Your task to perform on an android device: toggle notification dots Image 0: 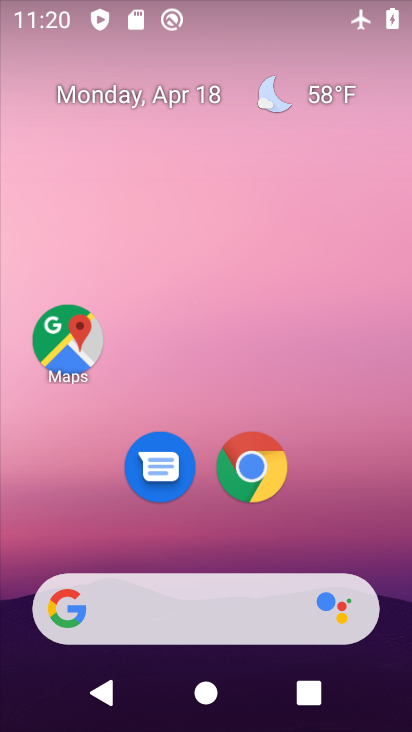
Step 0: drag from (203, 327) to (202, 80)
Your task to perform on an android device: toggle notification dots Image 1: 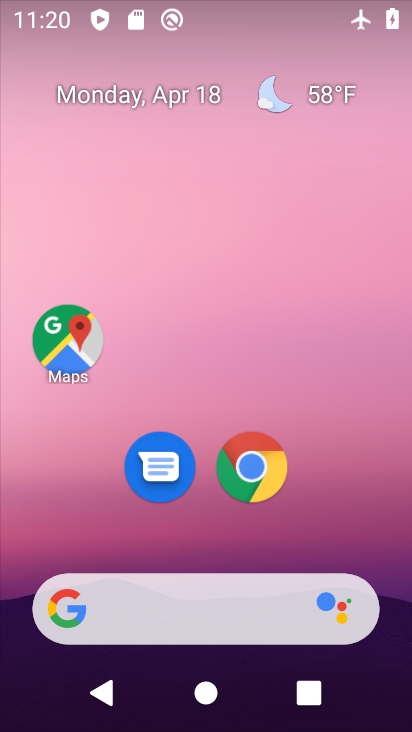
Step 1: drag from (217, 512) to (215, 50)
Your task to perform on an android device: toggle notification dots Image 2: 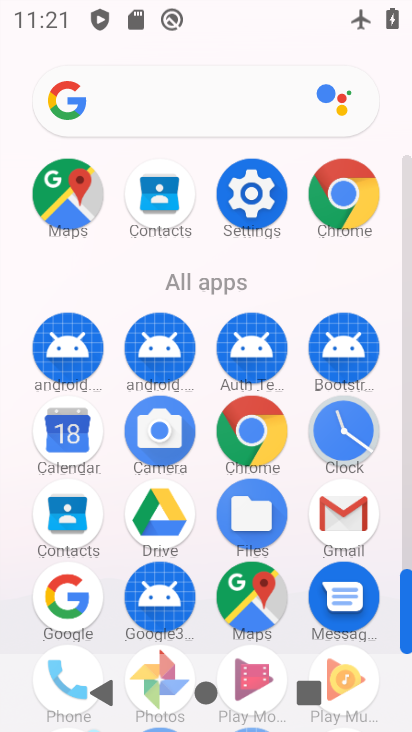
Step 2: click (243, 197)
Your task to perform on an android device: toggle notification dots Image 3: 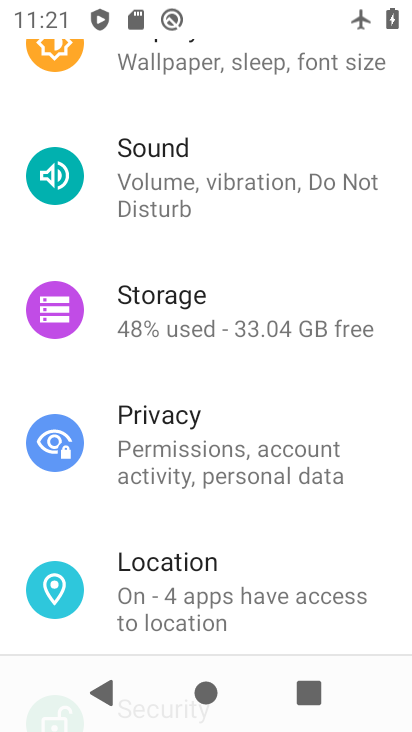
Step 3: drag from (253, 190) to (219, 541)
Your task to perform on an android device: toggle notification dots Image 4: 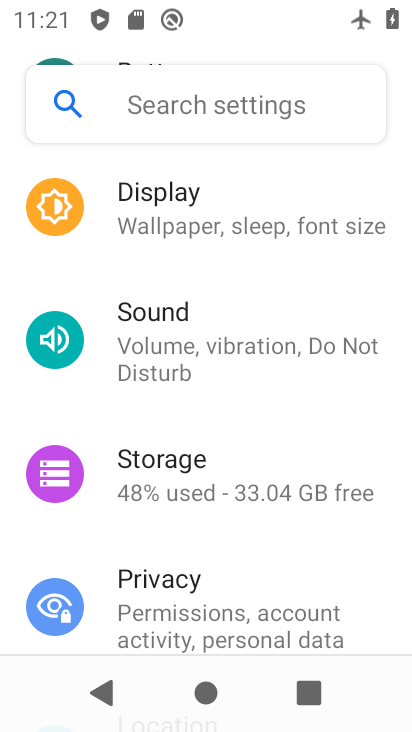
Step 4: drag from (234, 193) to (218, 636)
Your task to perform on an android device: toggle notification dots Image 5: 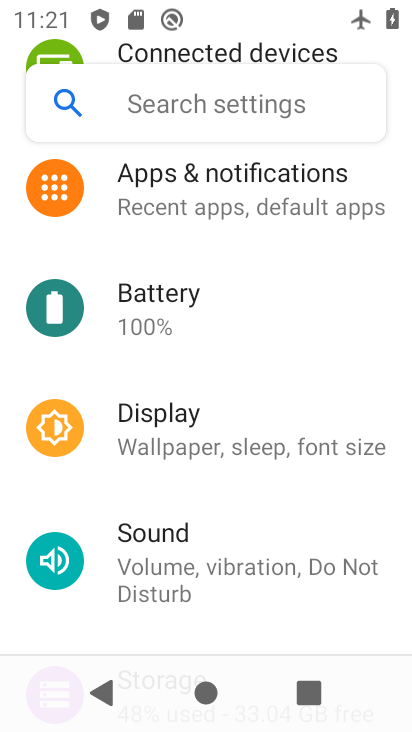
Step 5: click (211, 197)
Your task to perform on an android device: toggle notification dots Image 6: 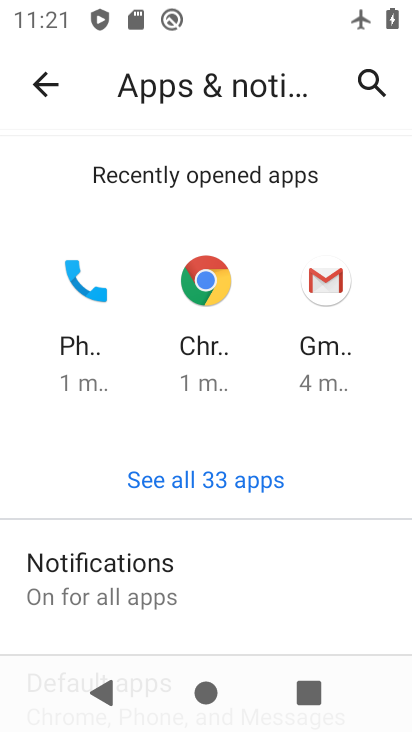
Step 6: click (162, 570)
Your task to perform on an android device: toggle notification dots Image 7: 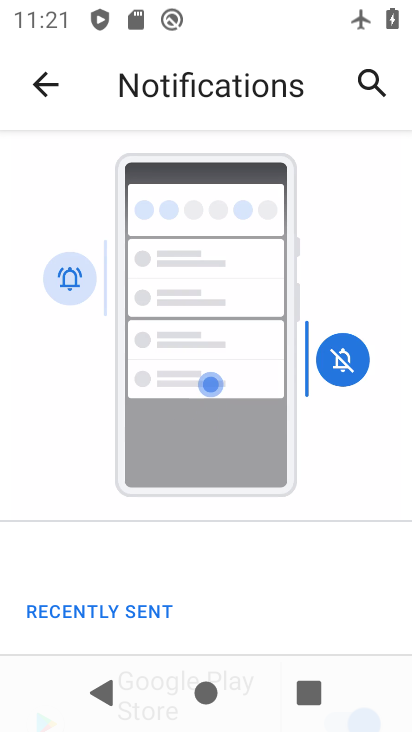
Step 7: drag from (193, 574) to (176, 197)
Your task to perform on an android device: toggle notification dots Image 8: 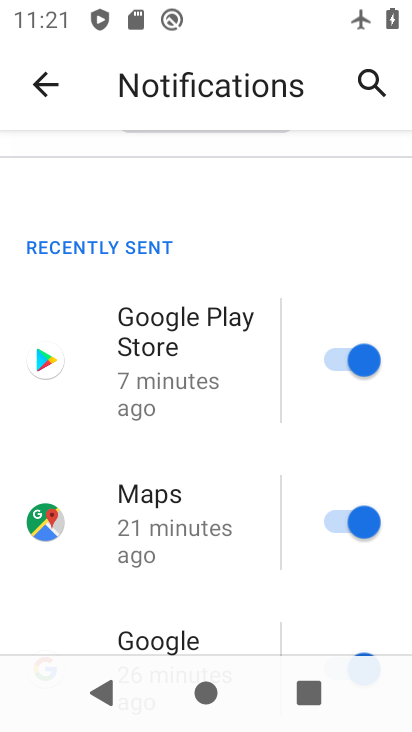
Step 8: drag from (195, 551) to (203, 201)
Your task to perform on an android device: toggle notification dots Image 9: 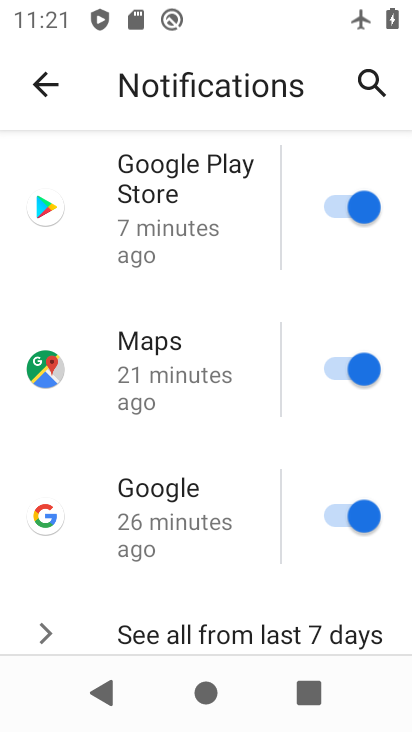
Step 9: drag from (194, 500) to (186, 183)
Your task to perform on an android device: toggle notification dots Image 10: 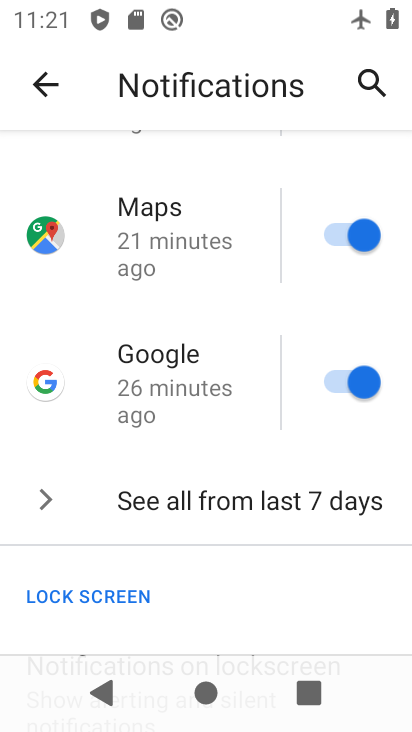
Step 10: drag from (199, 588) to (198, 201)
Your task to perform on an android device: toggle notification dots Image 11: 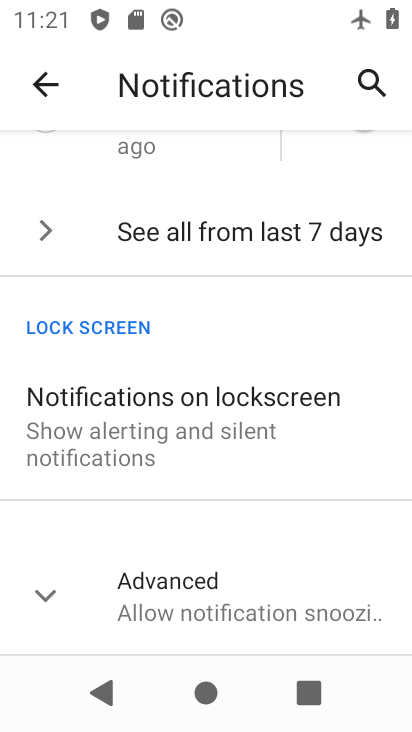
Step 11: drag from (247, 579) to (250, 215)
Your task to perform on an android device: toggle notification dots Image 12: 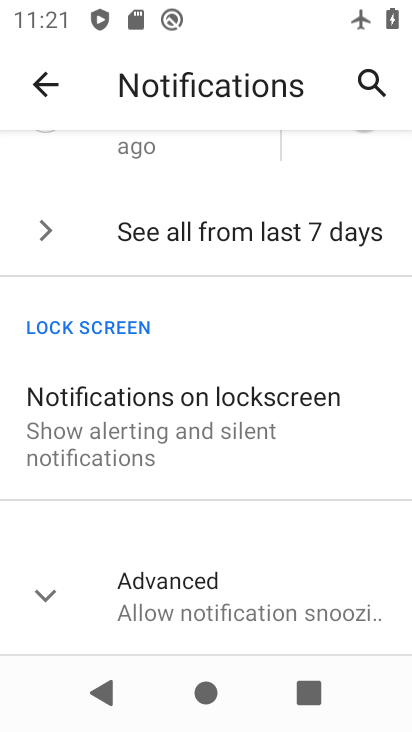
Step 12: click (185, 589)
Your task to perform on an android device: toggle notification dots Image 13: 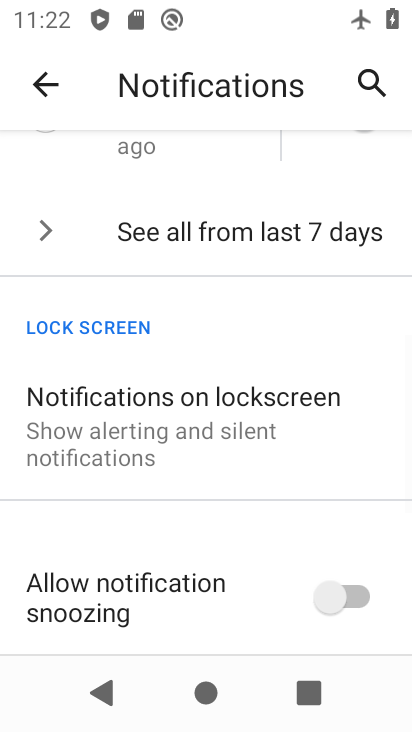
Step 13: drag from (238, 509) to (238, 188)
Your task to perform on an android device: toggle notification dots Image 14: 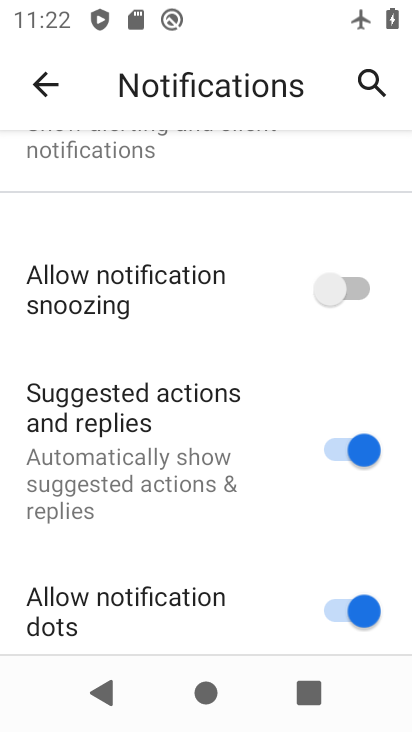
Step 14: drag from (247, 551) to (251, 260)
Your task to perform on an android device: toggle notification dots Image 15: 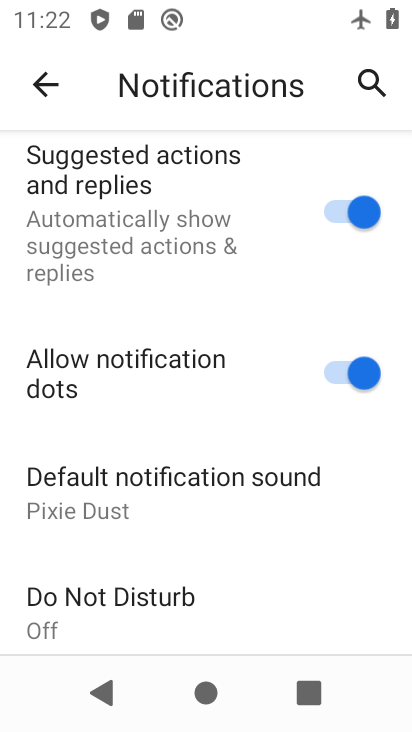
Step 15: drag from (204, 557) to (172, 201)
Your task to perform on an android device: toggle notification dots Image 16: 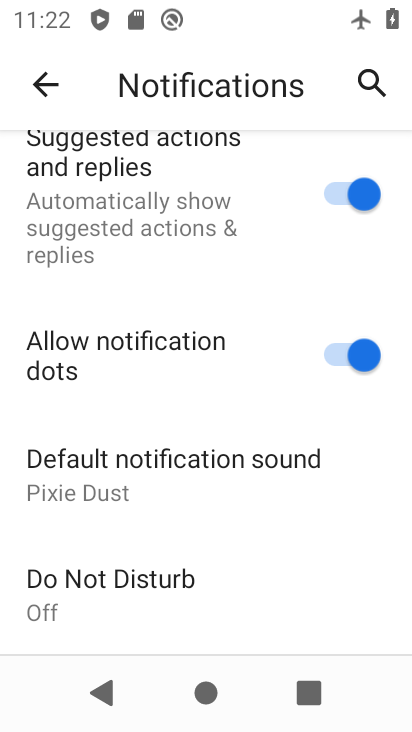
Step 16: click (344, 364)
Your task to perform on an android device: toggle notification dots Image 17: 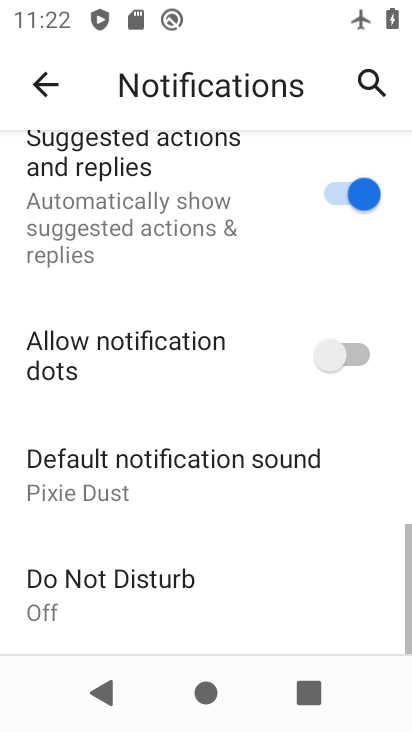
Step 17: task complete